Your task to perform on an android device: find snoozed emails in the gmail app Image 0: 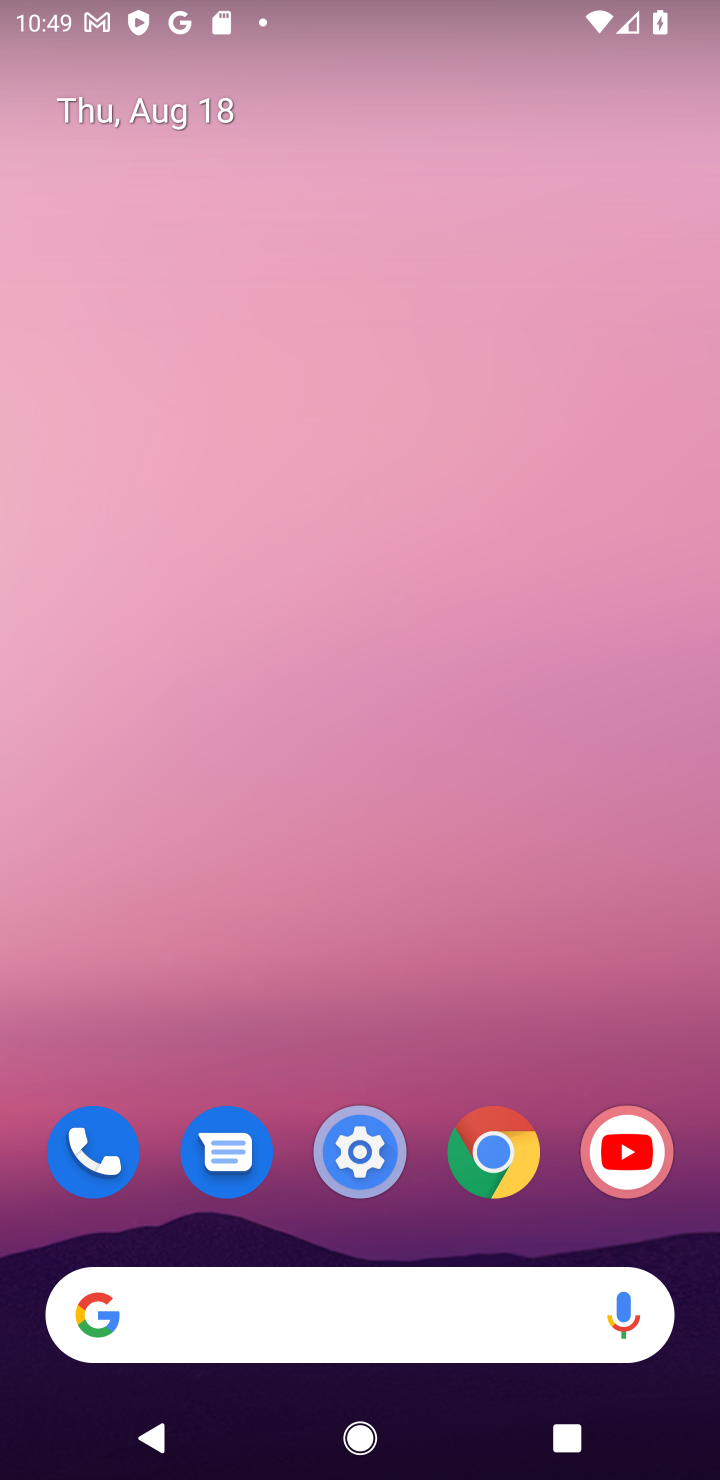
Step 0: drag from (397, 1042) to (299, 219)
Your task to perform on an android device: find snoozed emails in the gmail app Image 1: 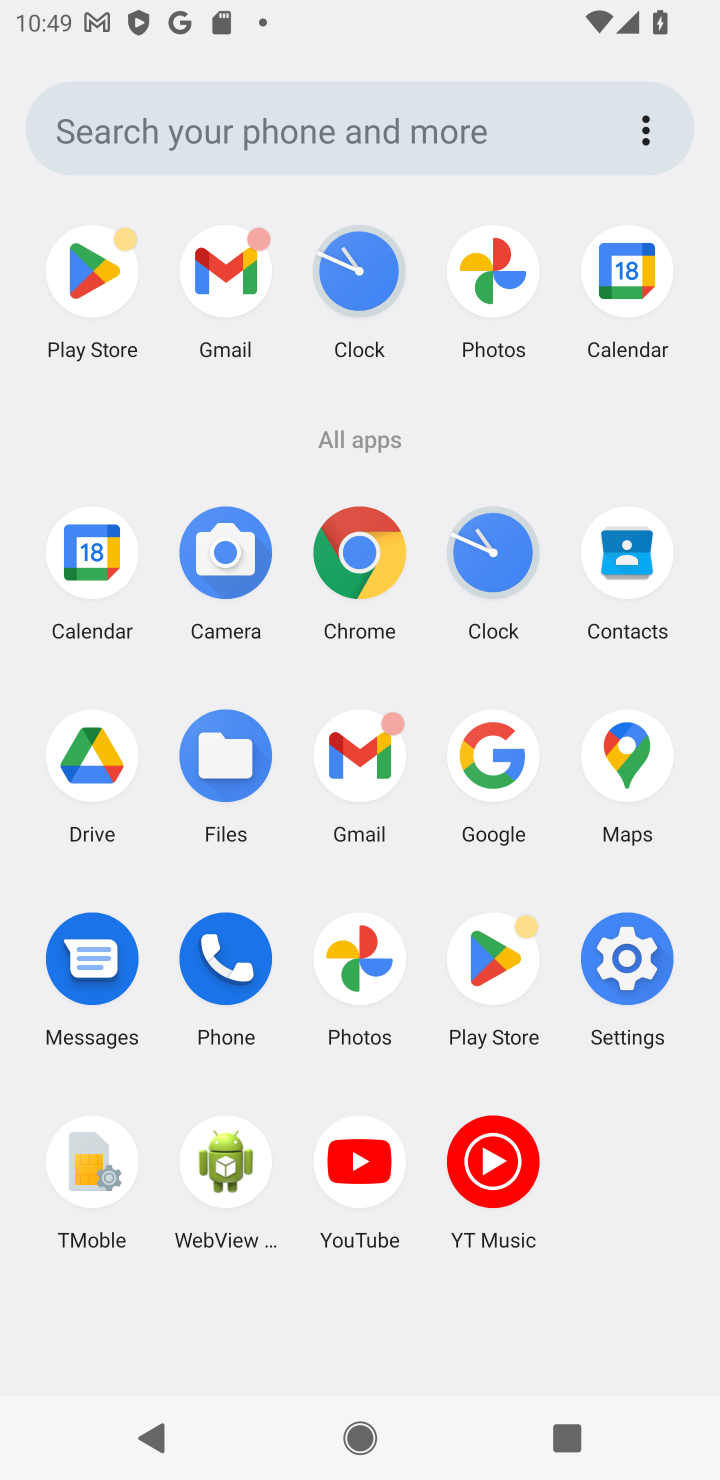
Step 1: click (342, 756)
Your task to perform on an android device: find snoozed emails in the gmail app Image 2: 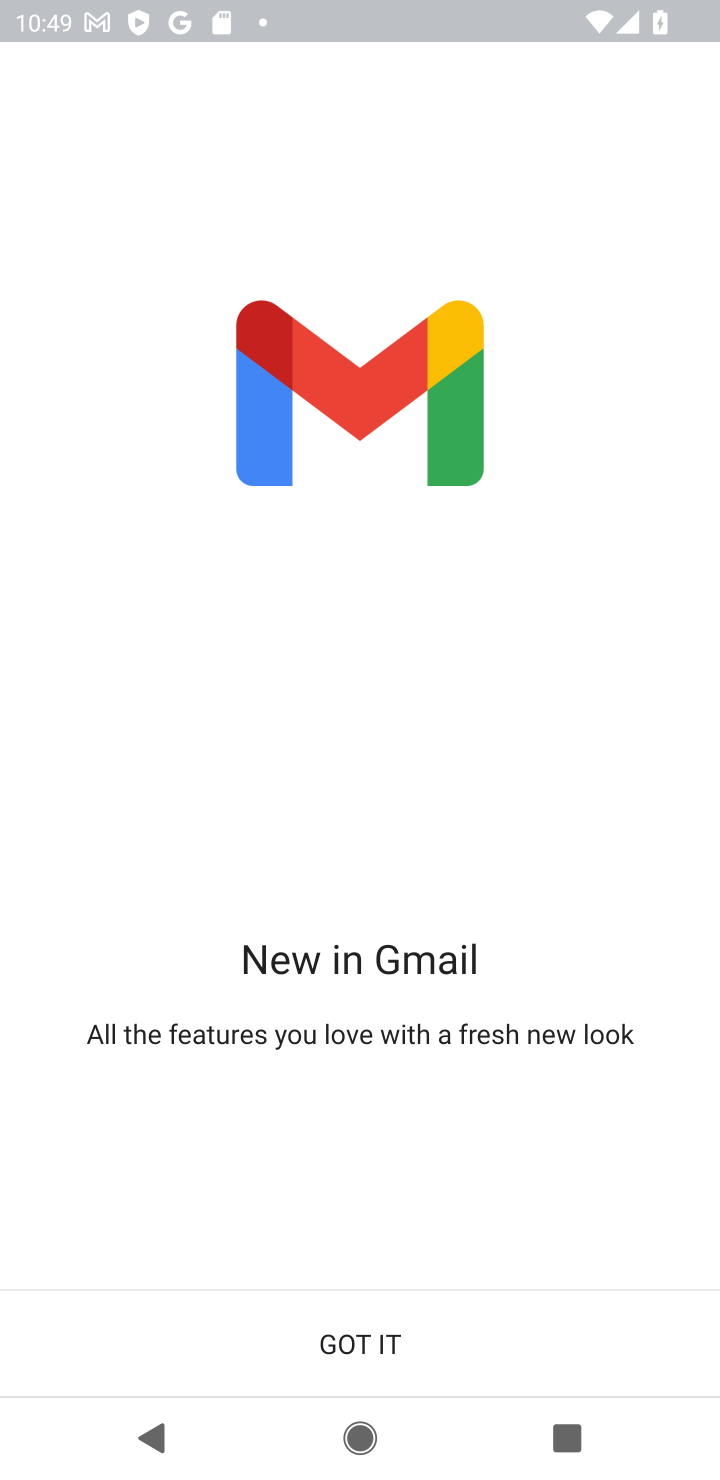
Step 2: click (385, 1348)
Your task to perform on an android device: find snoozed emails in the gmail app Image 3: 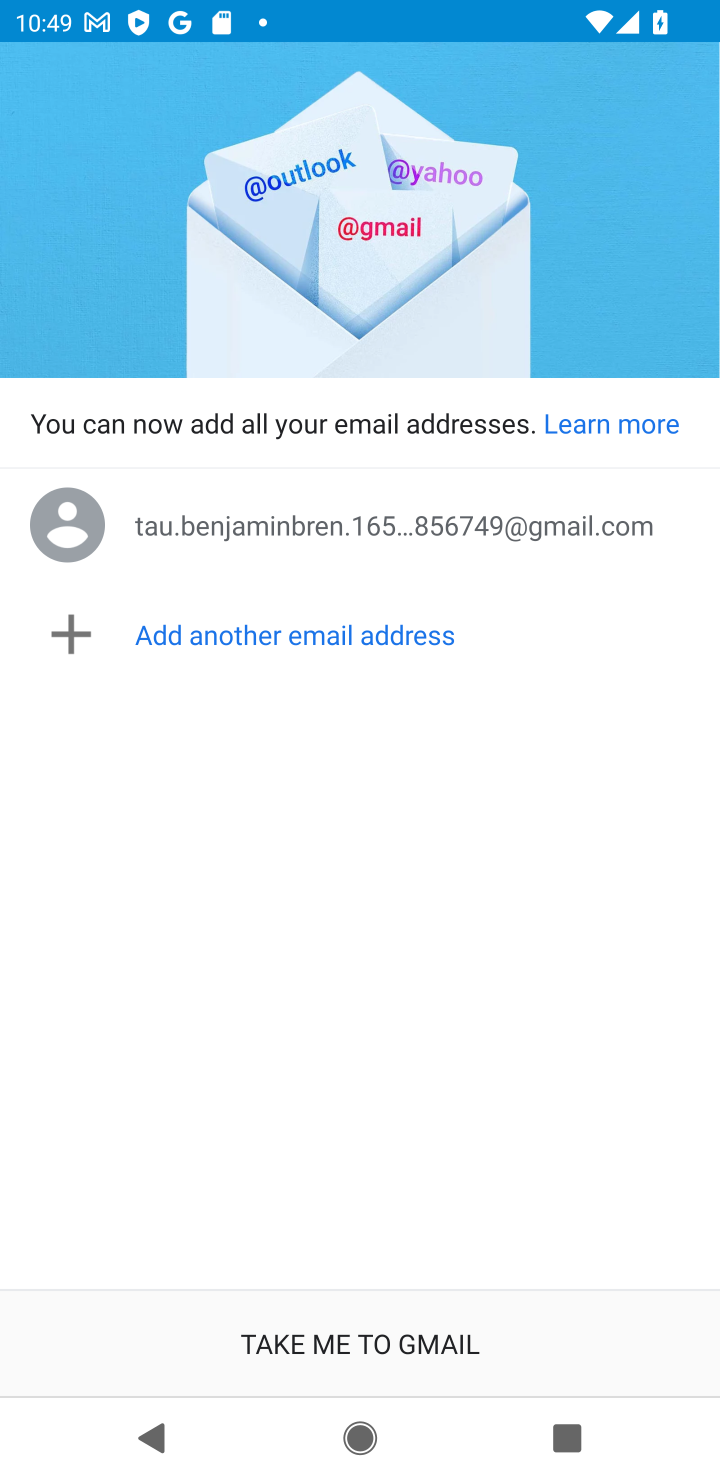
Step 3: click (385, 1348)
Your task to perform on an android device: find snoozed emails in the gmail app Image 4: 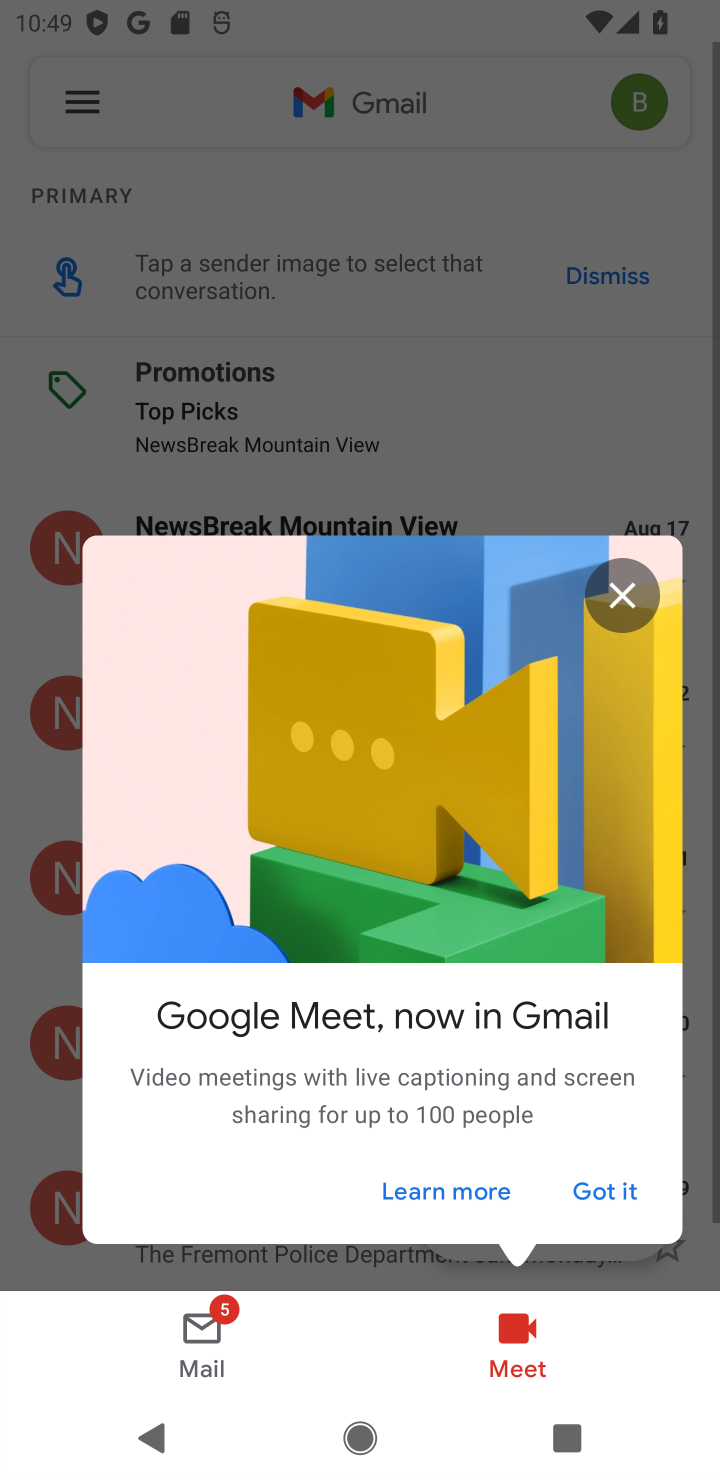
Step 4: click (633, 590)
Your task to perform on an android device: find snoozed emails in the gmail app Image 5: 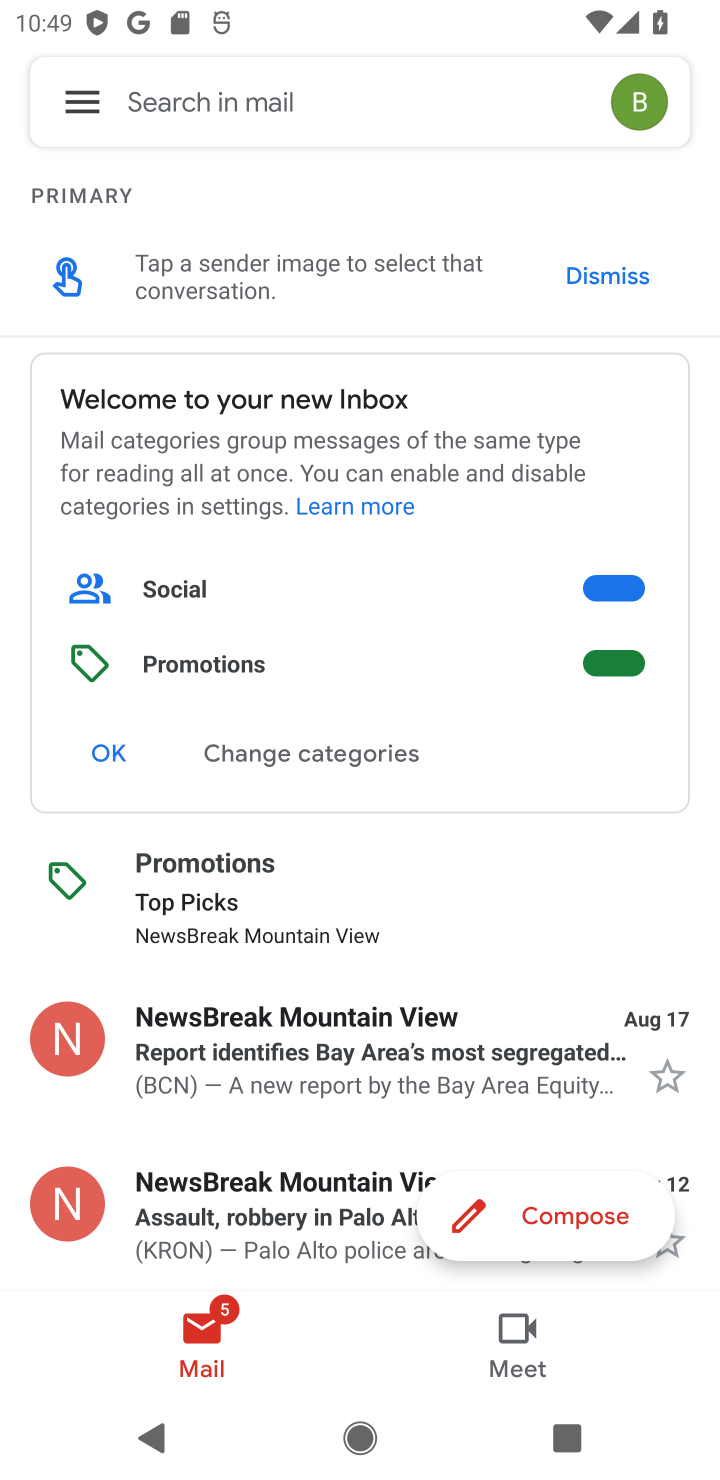
Step 5: click (72, 89)
Your task to perform on an android device: find snoozed emails in the gmail app Image 6: 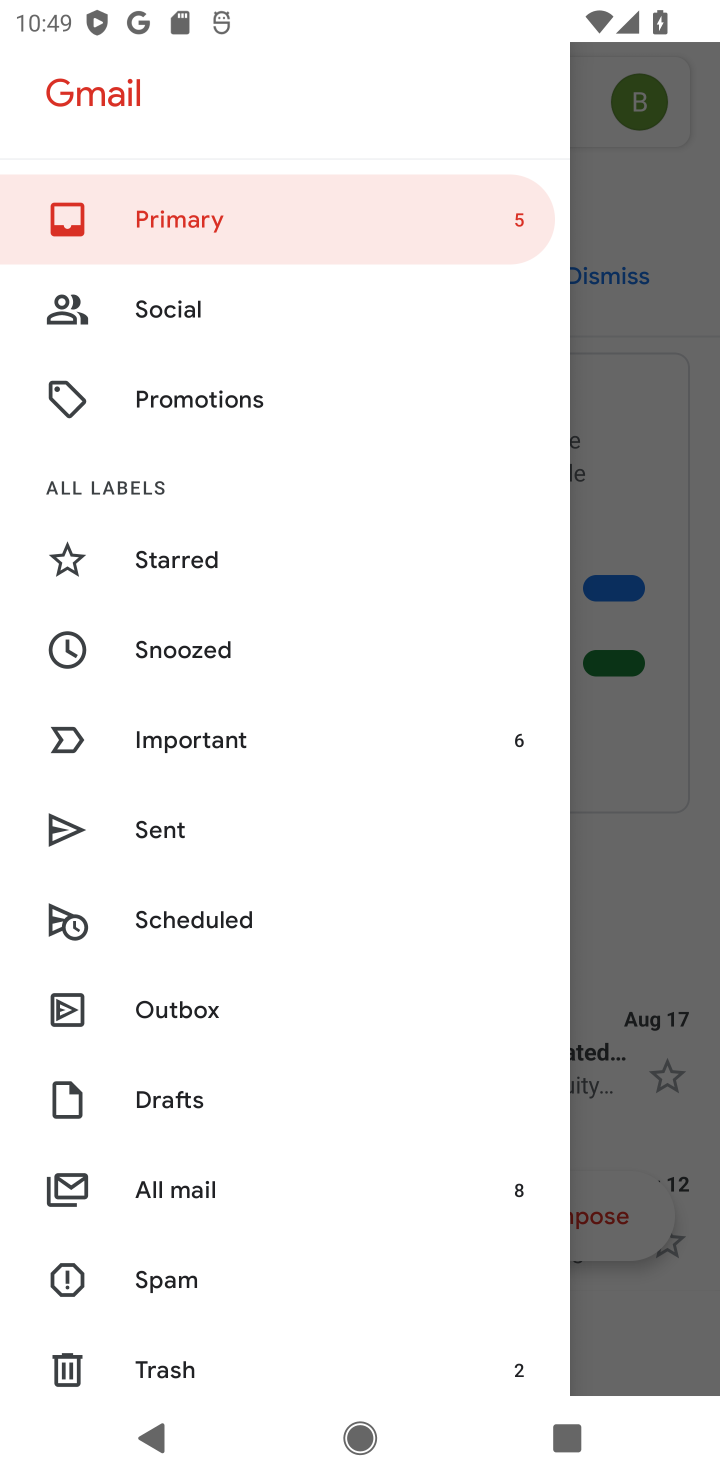
Step 6: click (187, 642)
Your task to perform on an android device: find snoozed emails in the gmail app Image 7: 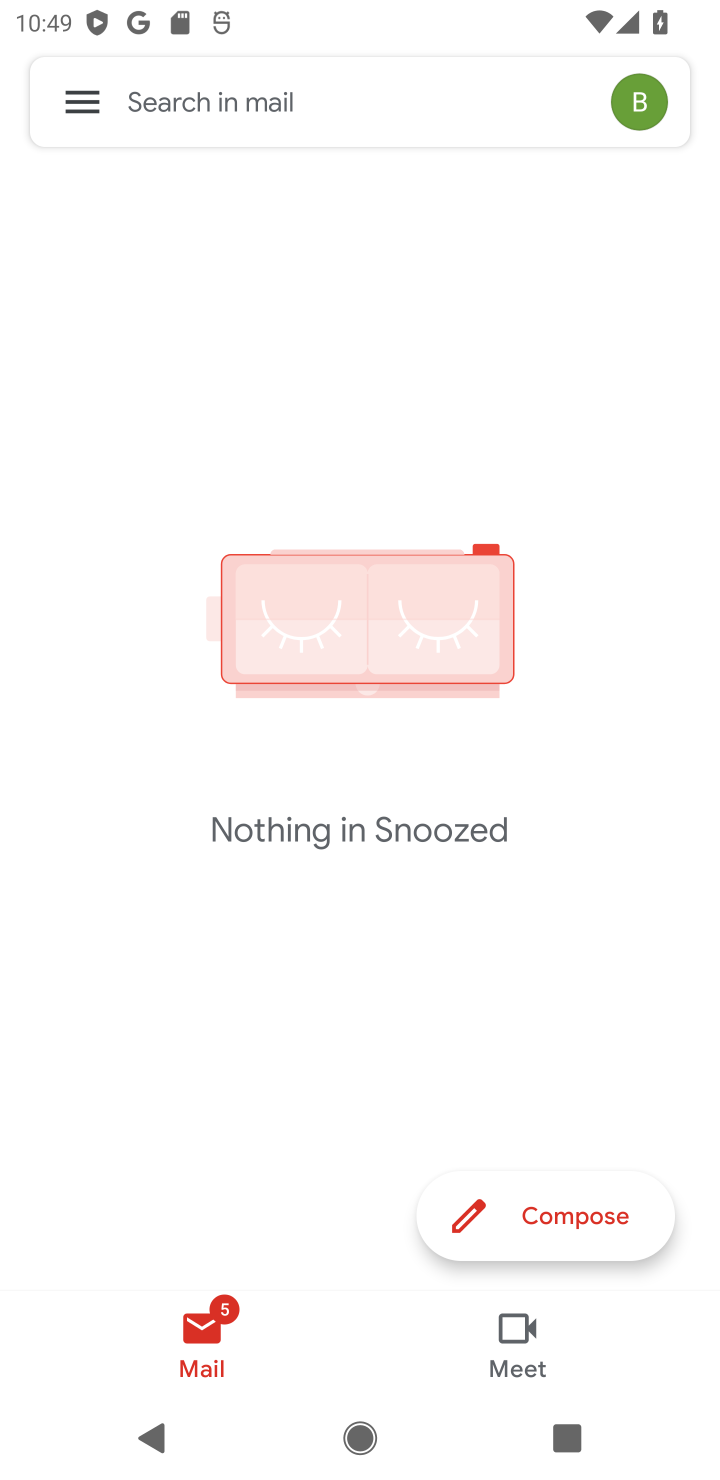
Step 7: task complete